Your task to perform on an android device: search for starred emails in the gmail app Image 0: 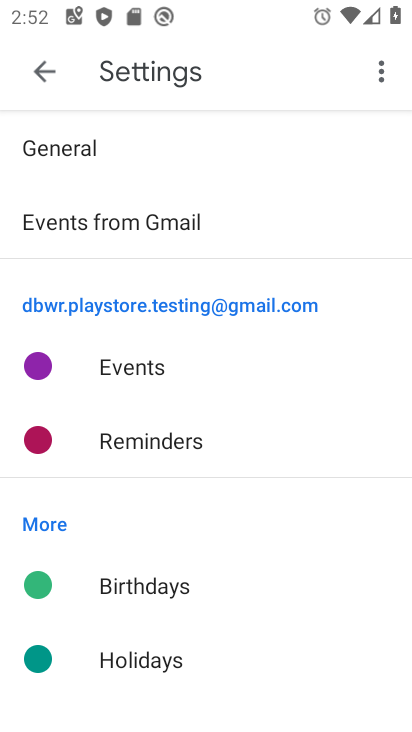
Step 0: press home button
Your task to perform on an android device: search for starred emails in the gmail app Image 1: 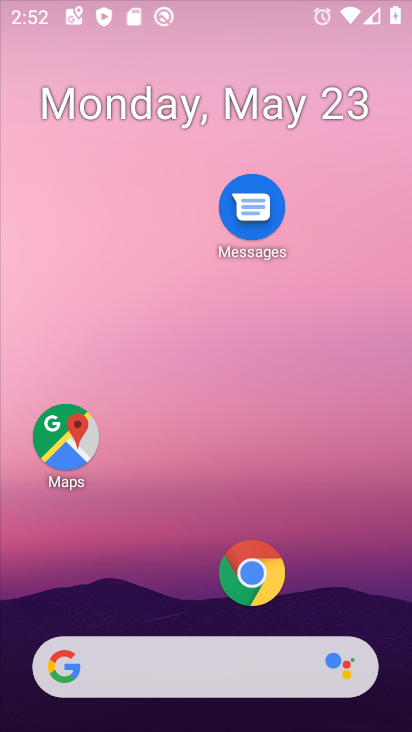
Step 1: drag from (326, 656) to (311, 58)
Your task to perform on an android device: search for starred emails in the gmail app Image 2: 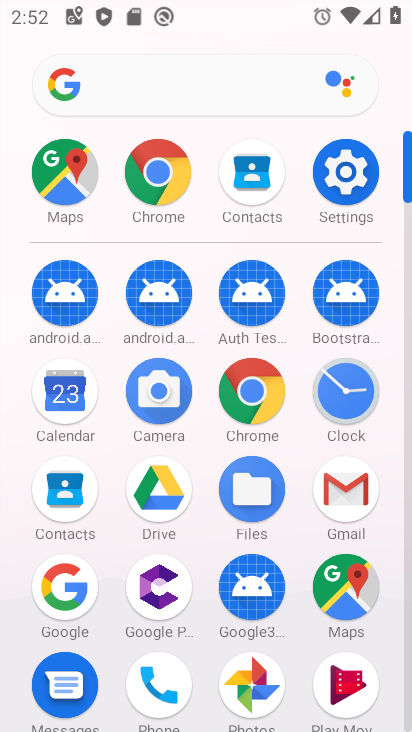
Step 2: click (343, 488)
Your task to perform on an android device: search for starred emails in the gmail app Image 3: 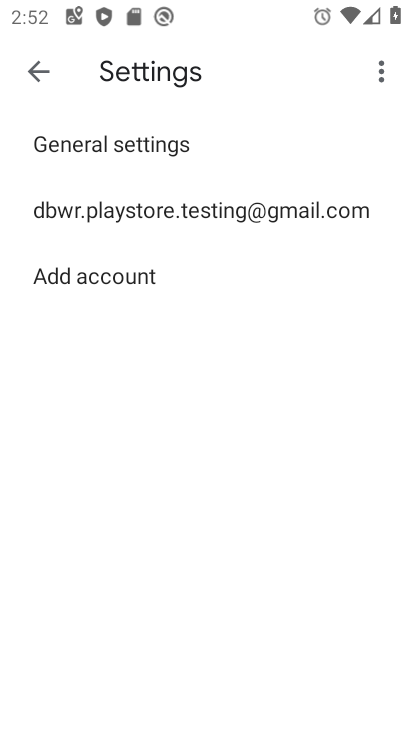
Step 3: press back button
Your task to perform on an android device: search for starred emails in the gmail app Image 4: 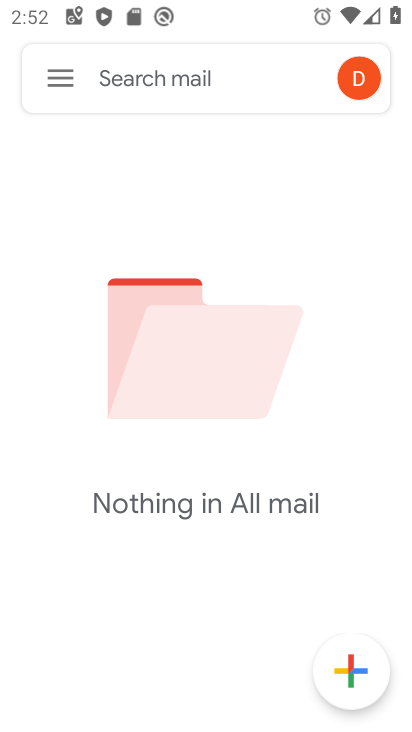
Step 4: click (61, 82)
Your task to perform on an android device: search for starred emails in the gmail app Image 5: 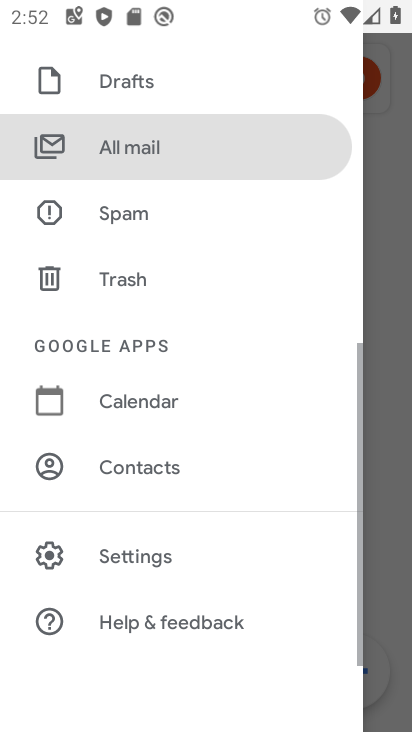
Step 5: drag from (210, 291) to (207, 646)
Your task to perform on an android device: search for starred emails in the gmail app Image 6: 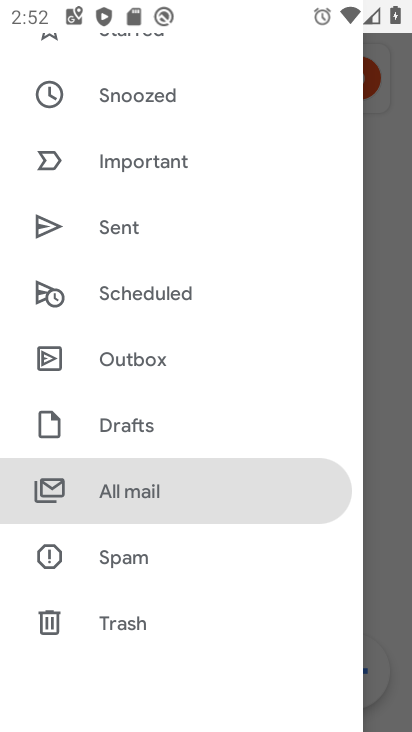
Step 6: drag from (159, 95) to (194, 346)
Your task to perform on an android device: search for starred emails in the gmail app Image 7: 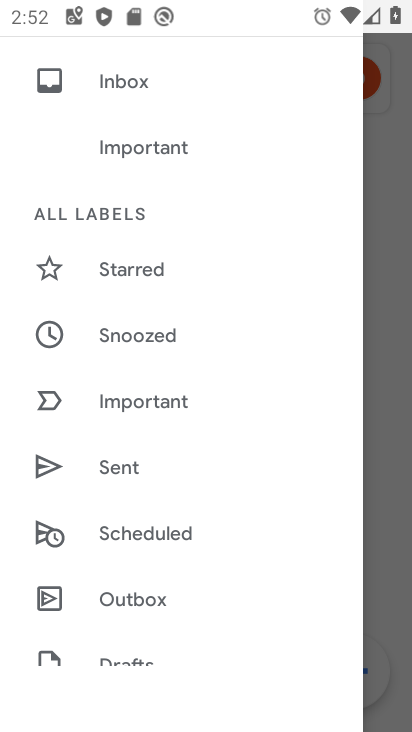
Step 7: click (148, 267)
Your task to perform on an android device: search for starred emails in the gmail app Image 8: 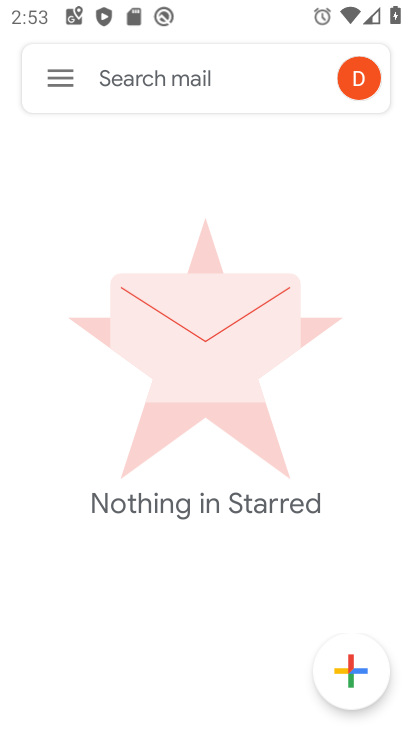
Step 8: task complete